Your task to perform on an android device: Find coffee shops on Maps Image 0: 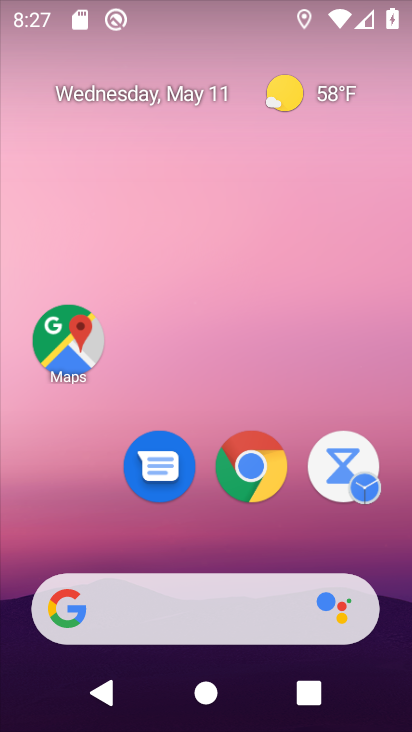
Step 0: drag from (247, 552) to (306, 13)
Your task to perform on an android device: Find coffee shops on Maps Image 1: 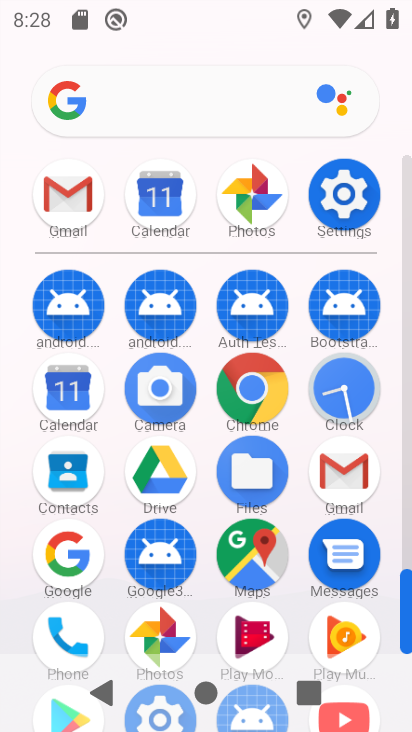
Step 1: click (244, 568)
Your task to perform on an android device: Find coffee shops on Maps Image 2: 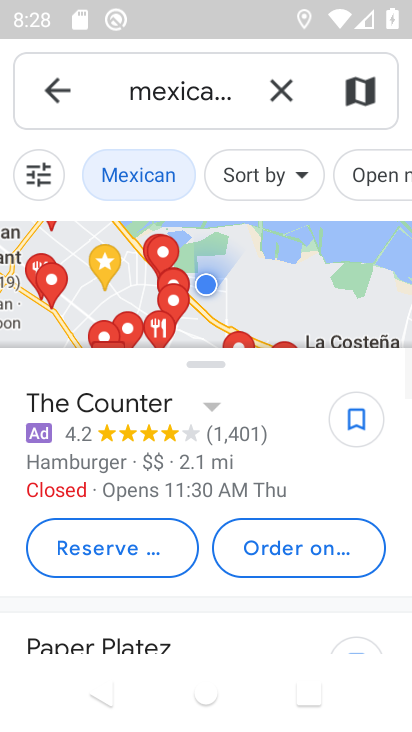
Step 2: click (282, 95)
Your task to perform on an android device: Find coffee shops on Maps Image 3: 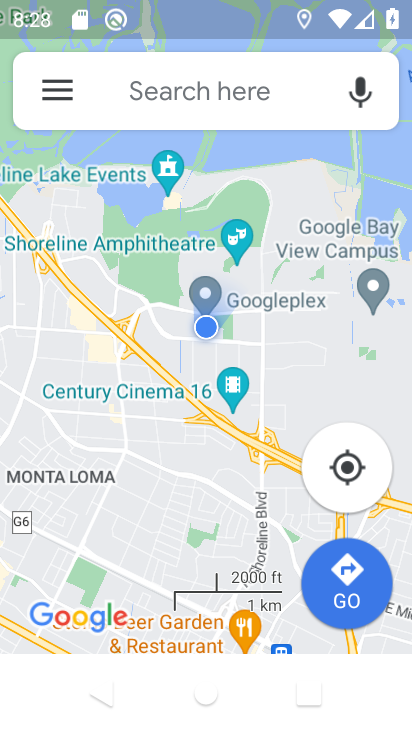
Step 3: click (222, 86)
Your task to perform on an android device: Find coffee shops on Maps Image 4: 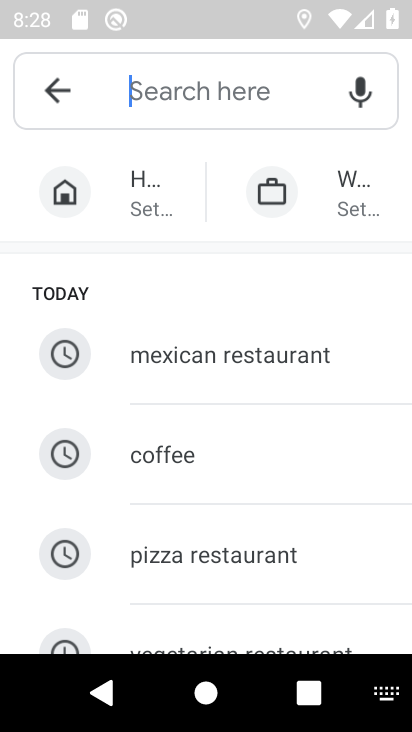
Step 4: type "coffee shops"
Your task to perform on an android device: Find coffee shops on Maps Image 5: 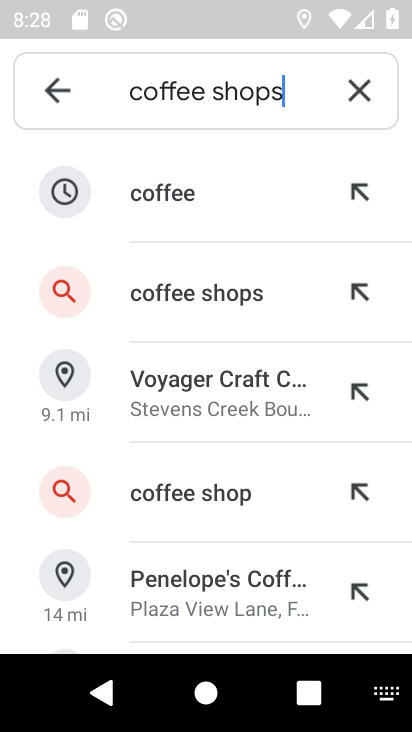
Step 5: click (238, 299)
Your task to perform on an android device: Find coffee shops on Maps Image 6: 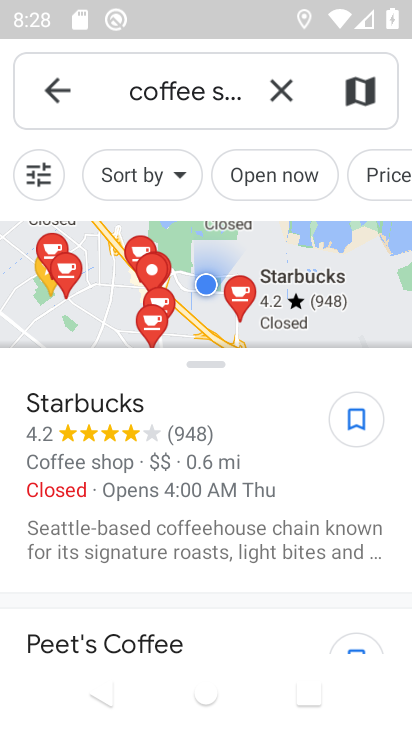
Step 6: task complete